Your task to perform on an android device: turn on showing notifications on the lock screen Image 0: 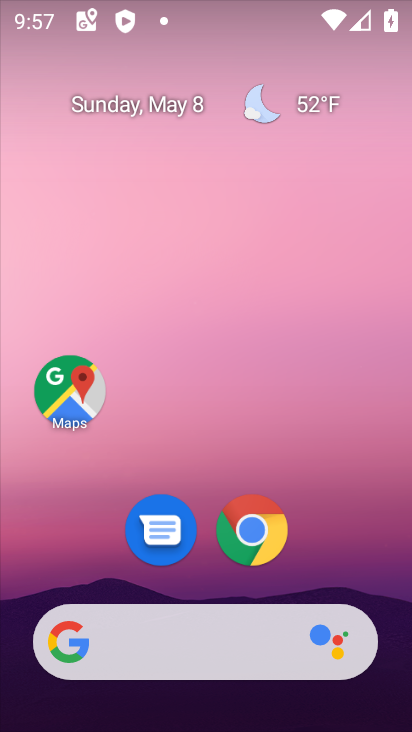
Step 0: drag from (334, 576) to (315, 87)
Your task to perform on an android device: turn on showing notifications on the lock screen Image 1: 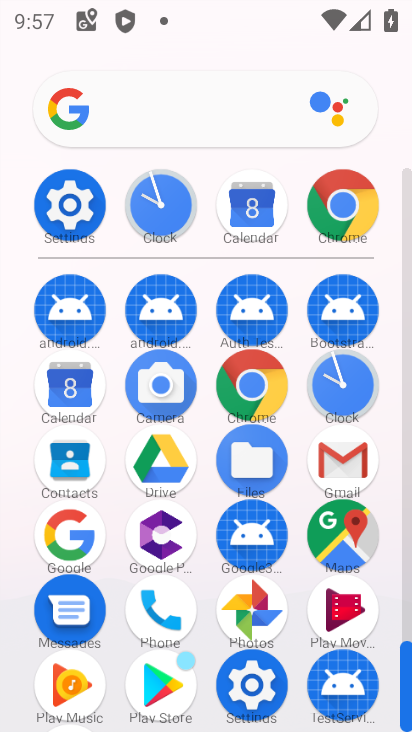
Step 1: click (65, 200)
Your task to perform on an android device: turn on showing notifications on the lock screen Image 2: 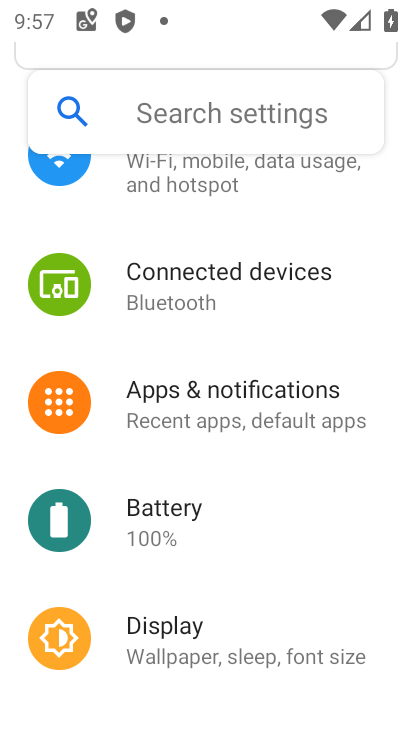
Step 2: drag from (309, 581) to (316, 320)
Your task to perform on an android device: turn on showing notifications on the lock screen Image 3: 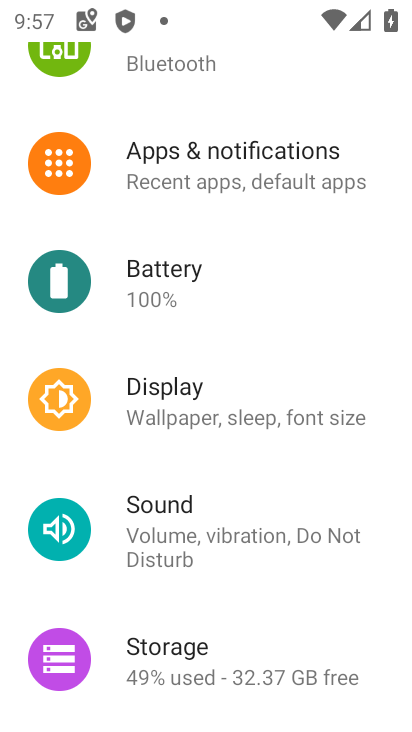
Step 3: drag from (280, 633) to (293, 338)
Your task to perform on an android device: turn on showing notifications on the lock screen Image 4: 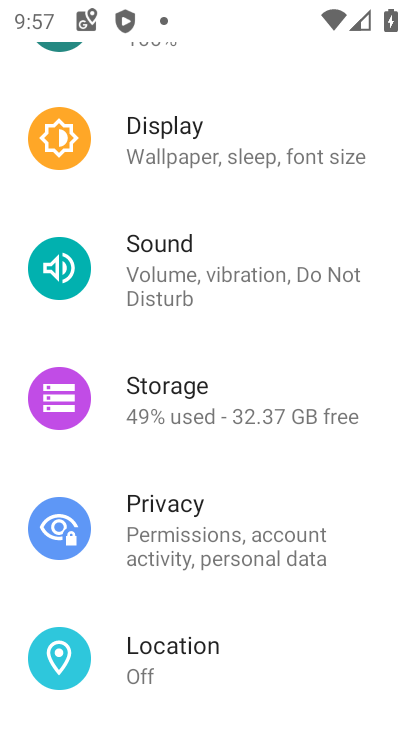
Step 4: drag from (260, 612) to (259, 337)
Your task to perform on an android device: turn on showing notifications on the lock screen Image 5: 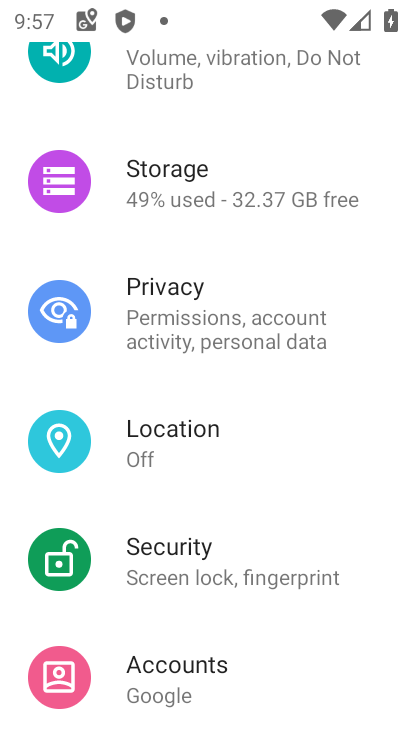
Step 5: drag from (251, 157) to (252, 549)
Your task to perform on an android device: turn on showing notifications on the lock screen Image 6: 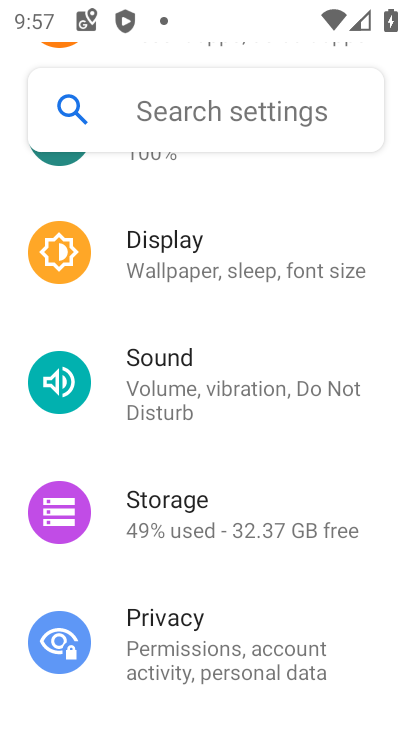
Step 6: drag from (223, 245) to (236, 615)
Your task to perform on an android device: turn on showing notifications on the lock screen Image 7: 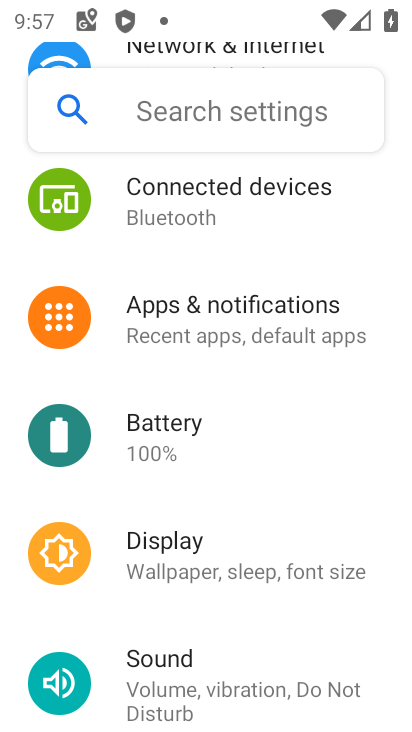
Step 7: click (236, 316)
Your task to perform on an android device: turn on showing notifications on the lock screen Image 8: 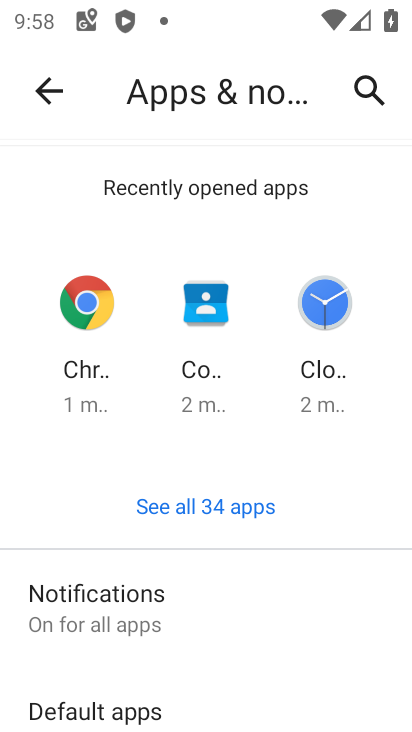
Step 8: click (142, 620)
Your task to perform on an android device: turn on showing notifications on the lock screen Image 9: 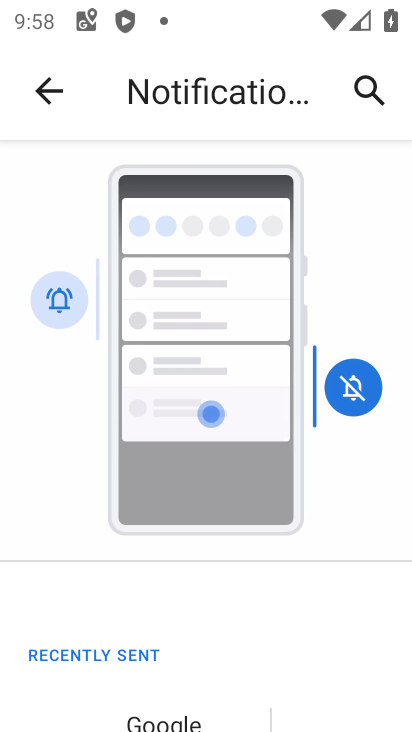
Step 9: drag from (253, 608) to (284, 246)
Your task to perform on an android device: turn on showing notifications on the lock screen Image 10: 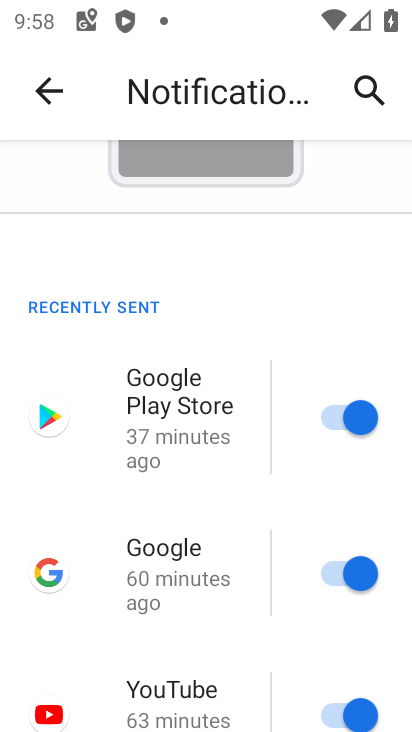
Step 10: drag from (226, 616) to (267, 279)
Your task to perform on an android device: turn on showing notifications on the lock screen Image 11: 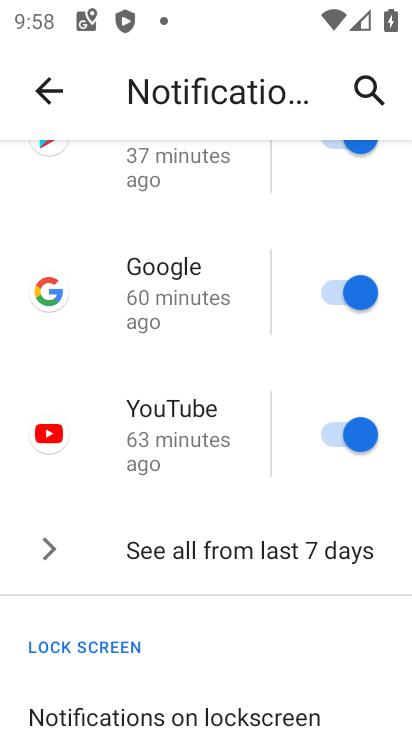
Step 11: drag from (168, 653) to (214, 357)
Your task to perform on an android device: turn on showing notifications on the lock screen Image 12: 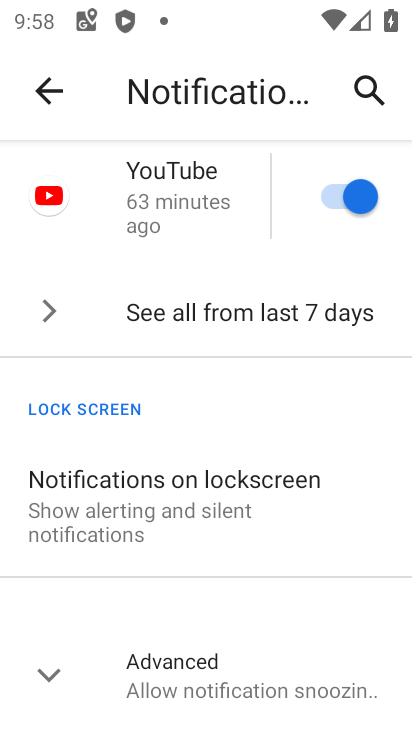
Step 12: click (206, 500)
Your task to perform on an android device: turn on showing notifications on the lock screen Image 13: 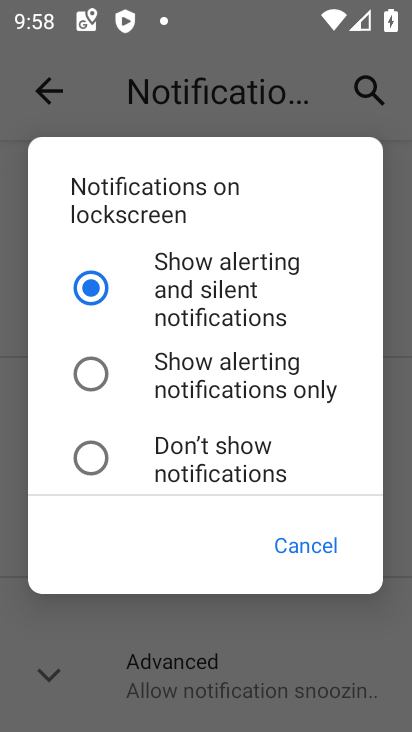
Step 13: task complete